Your task to perform on an android device: toggle airplane mode Image 0: 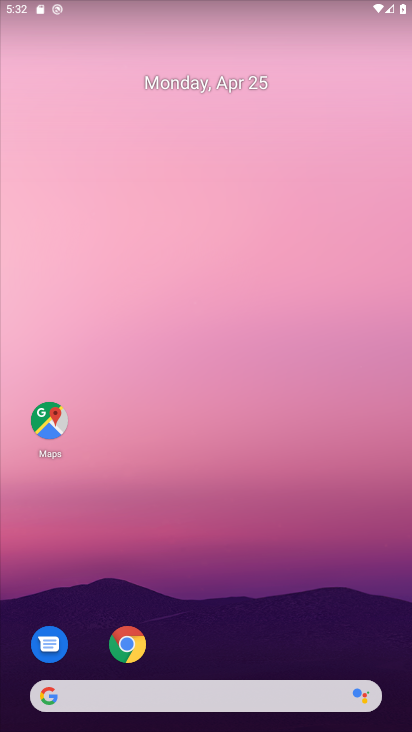
Step 0: drag from (272, 638) to (180, 101)
Your task to perform on an android device: toggle airplane mode Image 1: 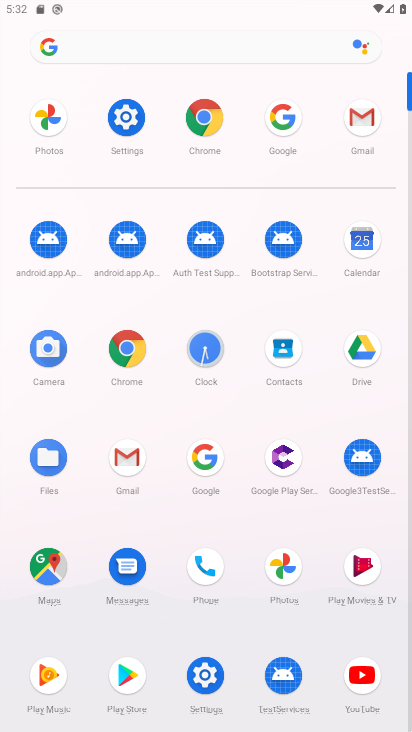
Step 1: click (124, 132)
Your task to perform on an android device: toggle airplane mode Image 2: 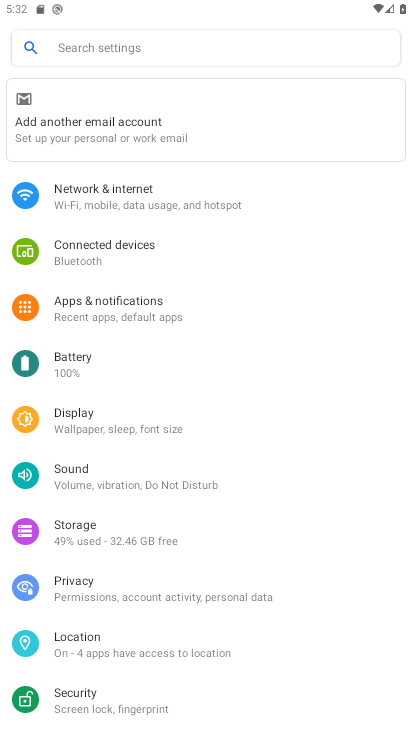
Step 2: click (174, 192)
Your task to perform on an android device: toggle airplane mode Image 3: 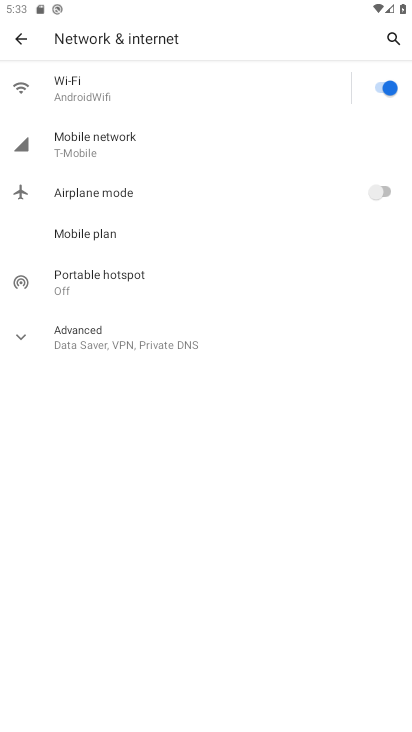
Step 3: click (371, 195)
Your task to perform on an android device: toggle airplane mode Image 4: 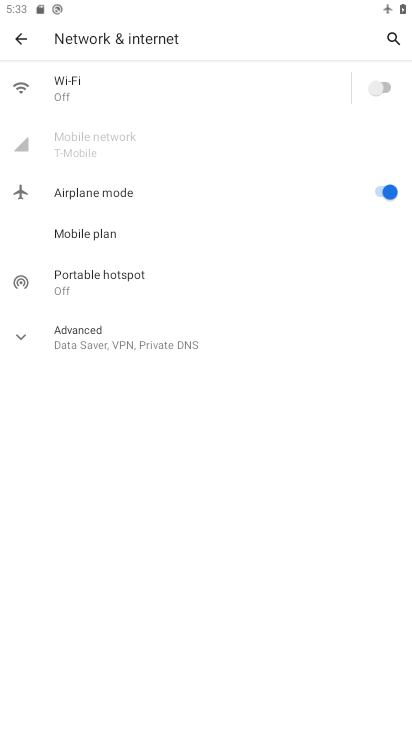
Step 4: task complete